Your task to perform on an android device: check out phone information Image 0: 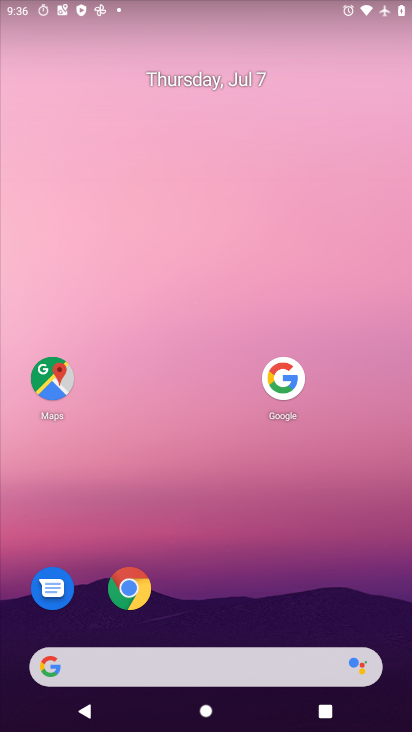
Step 0: drag from (229, 668) to (361, 84)
Your task to perform on an android device: check out phone information Image 1: 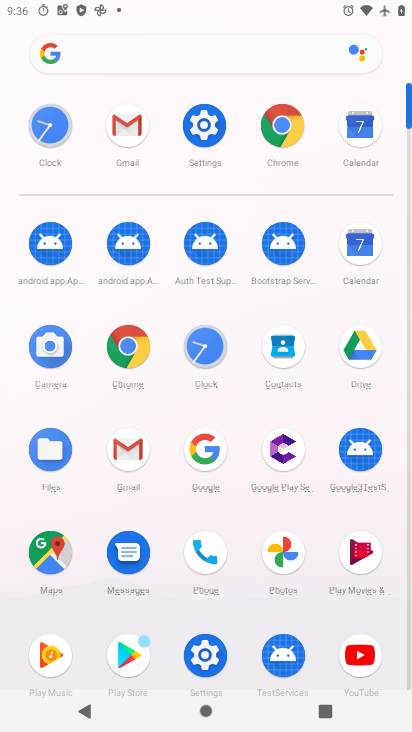
Step 1: click (200, 126)
Your task to perform on an android device: check out phone information Image 2: 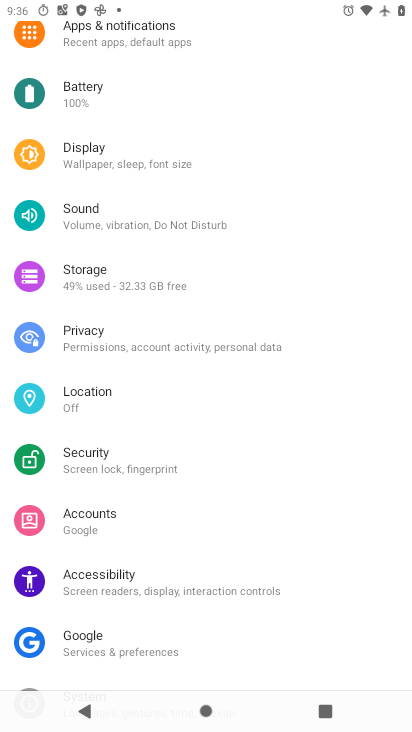
Step 2: drag from (215, 644) to (330, 112)
Your task to perform on an android device: check out phone information Image 3: 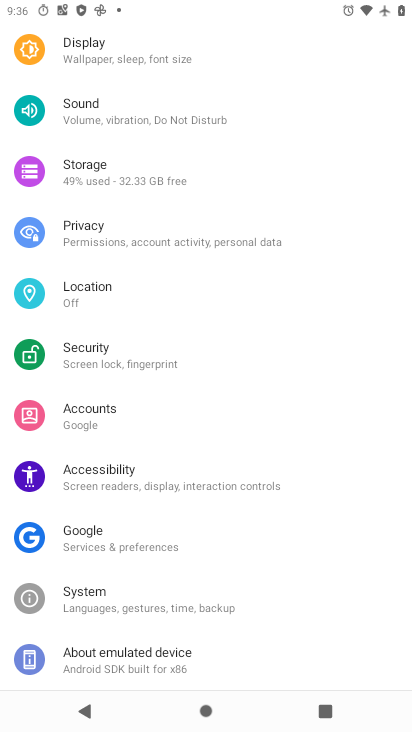
Step 3: click (168, 665)
Your task to perform on an android device: check out phone information Image 4: 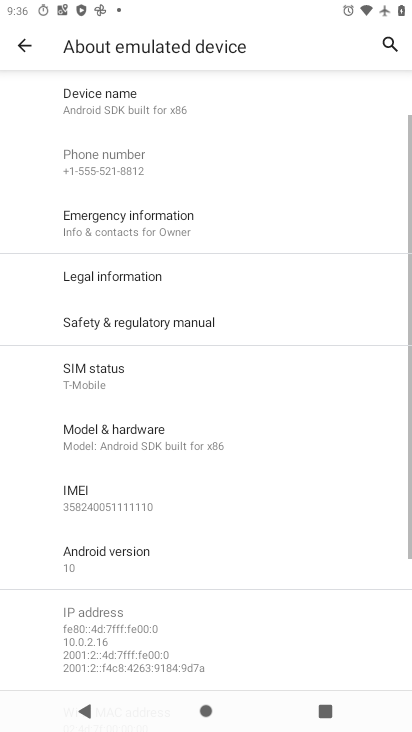
Step 4: task complete